Your task to perform on an android device: turn off notifications settings in the gmail app Image 0: 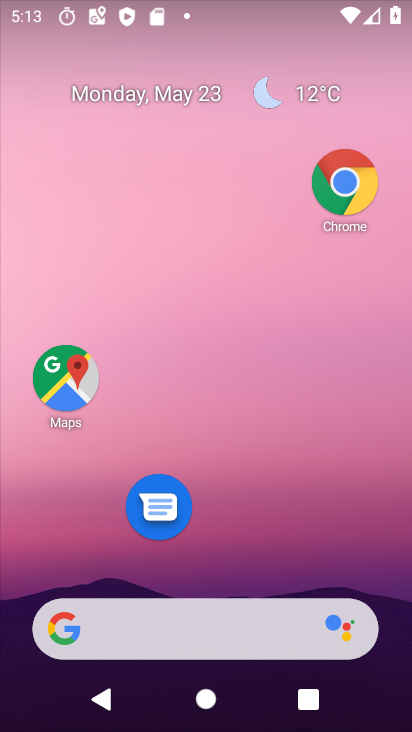
Step 0: drag from (202, 489) to (246, 228)
Your task to perform on an android device: turn off notifications settings in the gmail app Image 1: 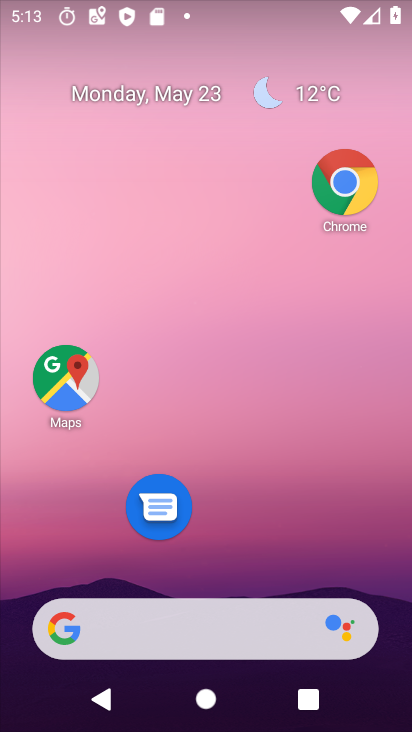
Step 1: drag from (227, 329) to (255, 39)
Your task to perform on an android device: turn off notifications settings in the gmail app Image 2: 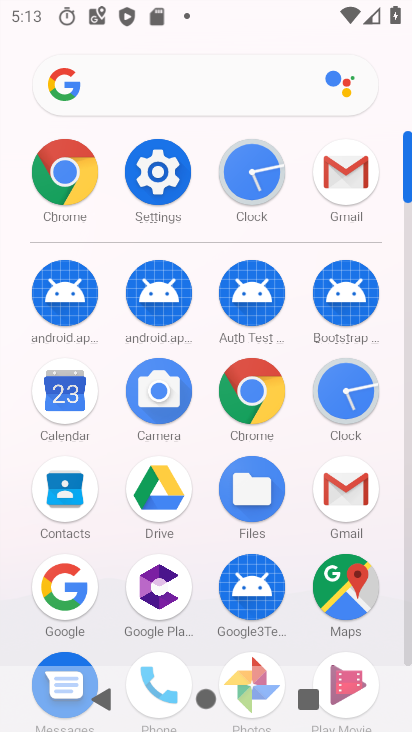
Step 2: click (354, 467)
Your task to perform on an android device: turn off notifications settings in the gmail app Image 3: 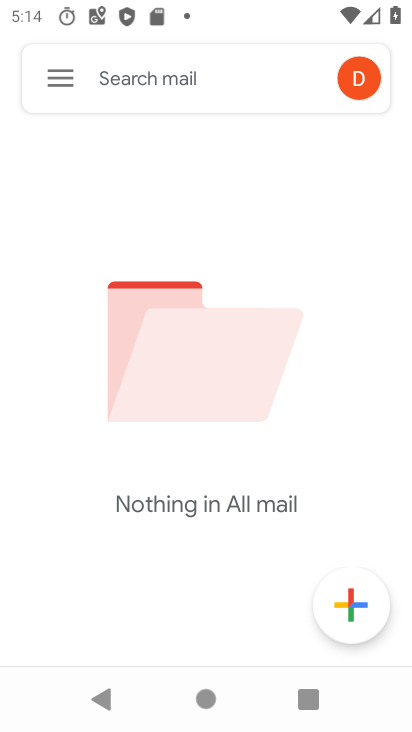
Step 3: click (64, 82)
Your task to perform on an android device: turn off notifications settings in the gmail app Image 4: 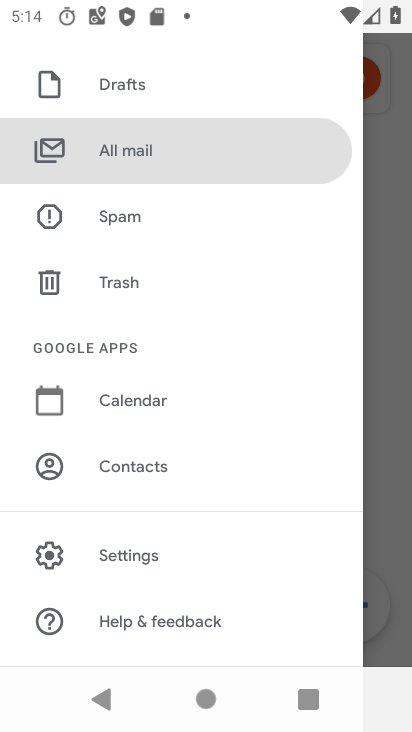
Step 4: click (131, 568)
Your task to perform on an android device: turn off notifications settings in the gmail app Image 5: 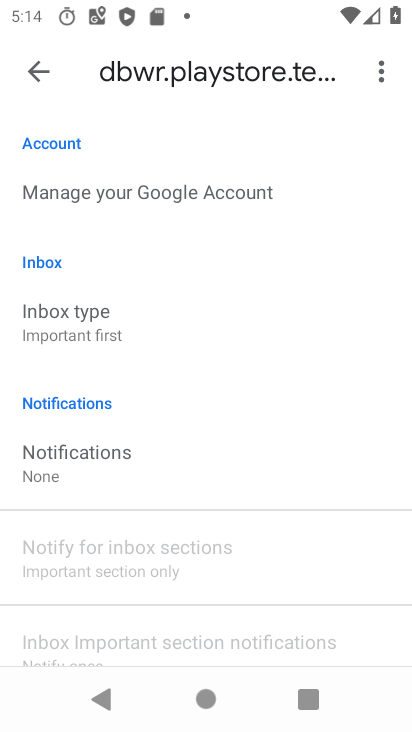
Step 5: click (30, 488)
Your task to perform on an android device: turn off notifications settings in the gmail app Image 6: 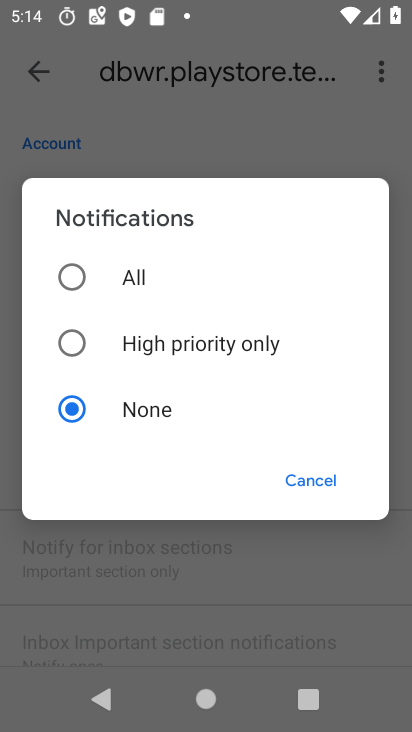
Step 6: task complete